Your task to perform on an android device: Set the phone to "Do not disturb". Image 0: 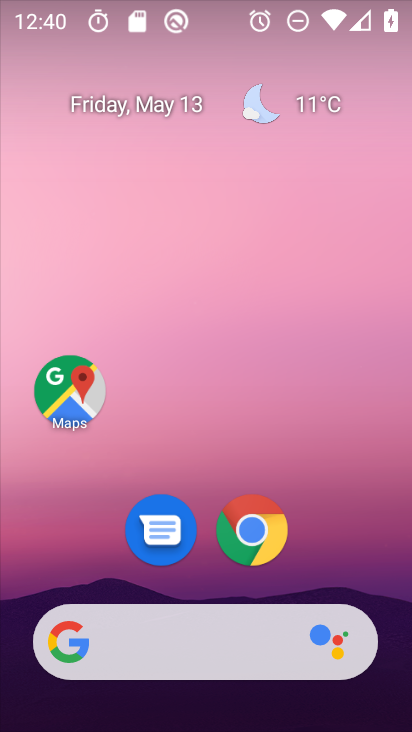
Step 0: press home button
Your task to perform on an android device: Set the phone to "Do not disturb". Image 1: 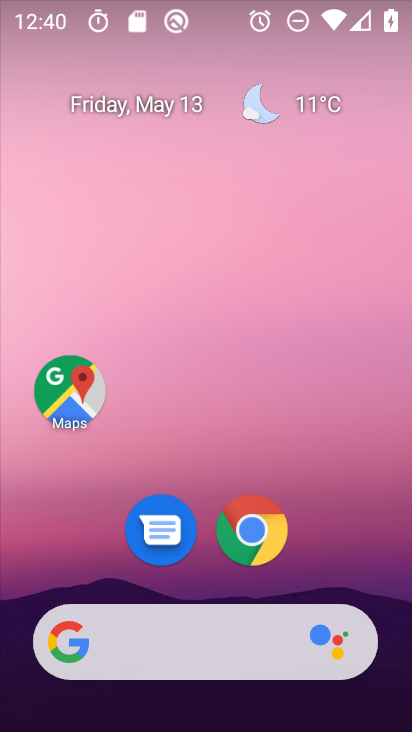
Step 1: drag from (197, 658) to (286, 166)
Your task to perform on an android device: Set the phone to "Do not disturb". Image 2: 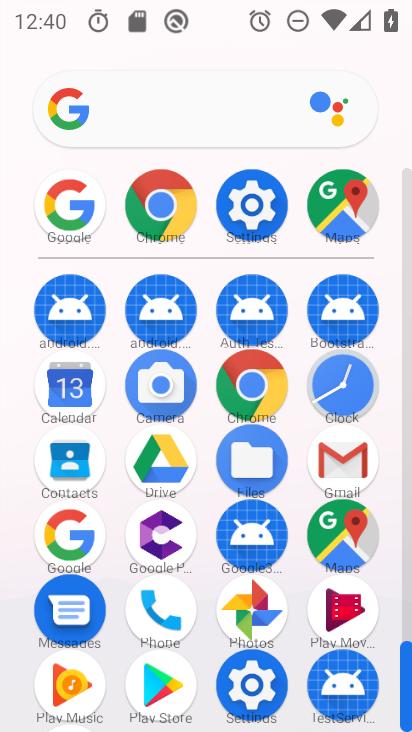
Step 2: click (262, 202)
Your task to perform on an android device: Set the phone to "Do not disturb". Image 3: 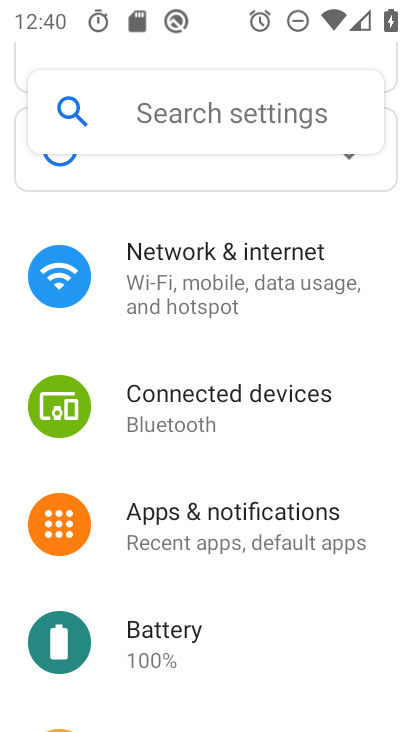
Step 3: drag from (220, 675) to (332, 228)
Your task to perform on an android device: Set the phone to "Do not disturb". Image 4: 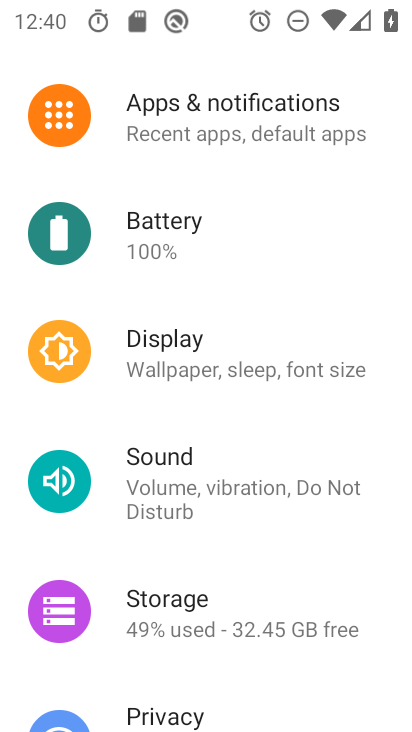
Step 4: click (204, 470)
Your task to perform on an android device: Set the phone to "Do not disturb". Image 5: 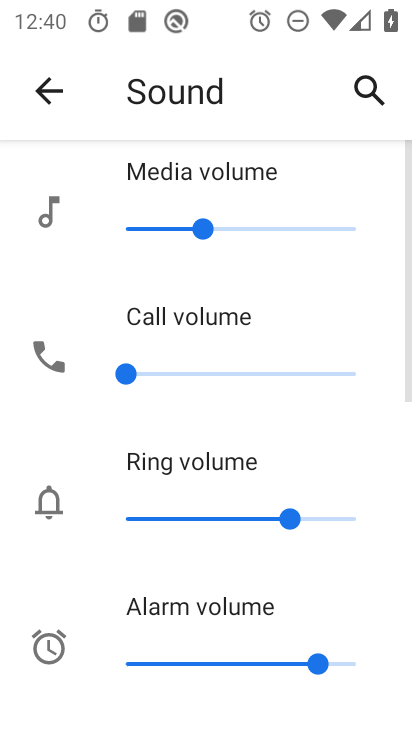
Step 5: drag from (145, 676) to (303, 194)
Your task to perform on an android device: Set the phone to "Do not disturb". Image 6: 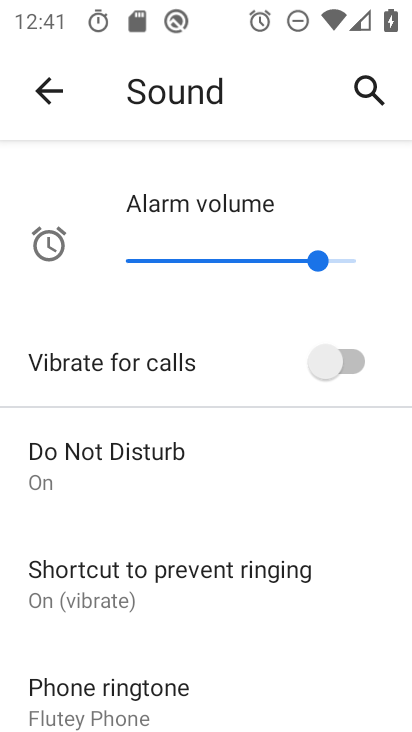
Step 6: click (139, 470)
Your task to perform on an android device: Set the phone to "Do not disturb". Image 7: 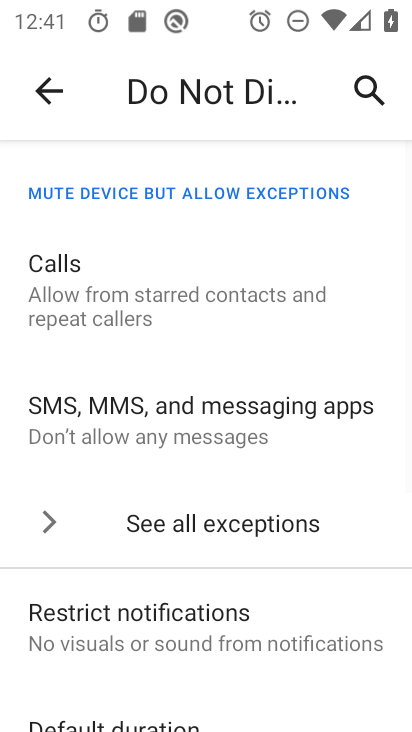
Step 7: task complete